Your task to perform on an android device: turn notification dots on Image 0: 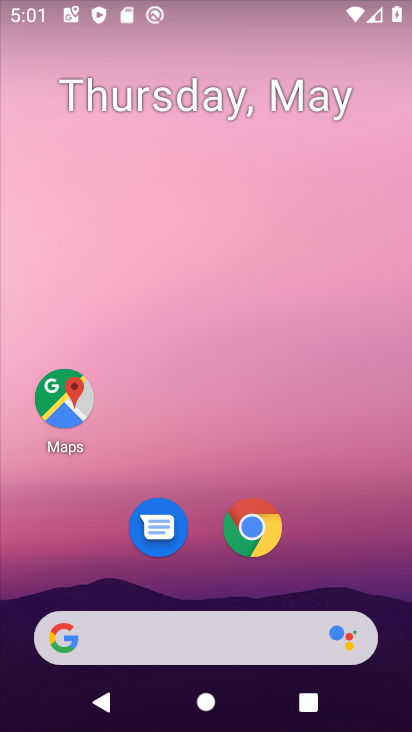
Step 0: drag from (349, 401) to (330, 16)
Your task to perform on an android device: turn notification dots on Image 1: 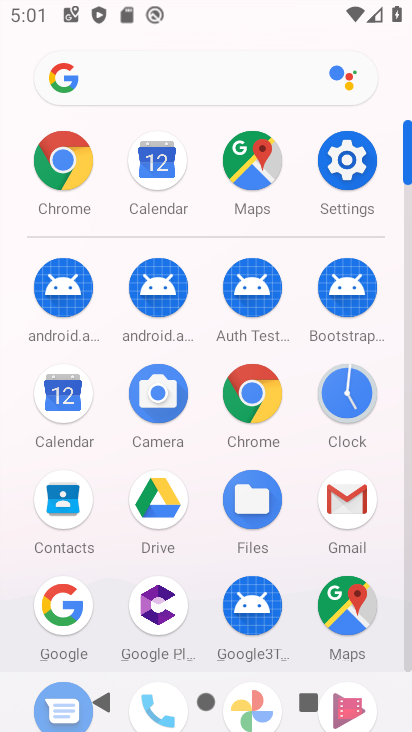
Step 1: click (351, 172)
Your task to perform on an android device: turn notification dots on Image 2: 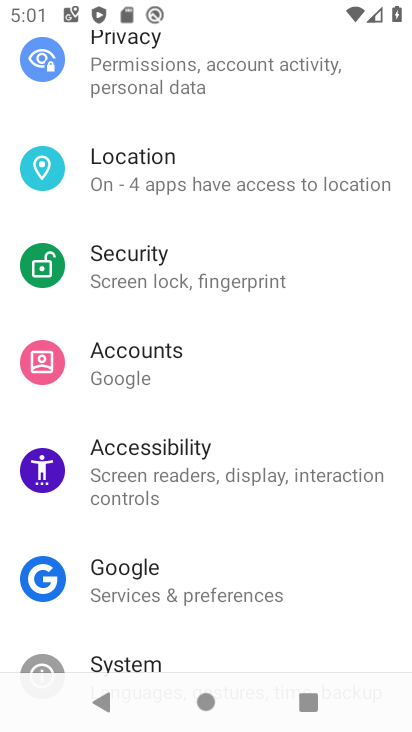
Step 2: drag from (207, 626) to (202, 224)
Your task to perform on an android device: turn notification dots on Image 3: 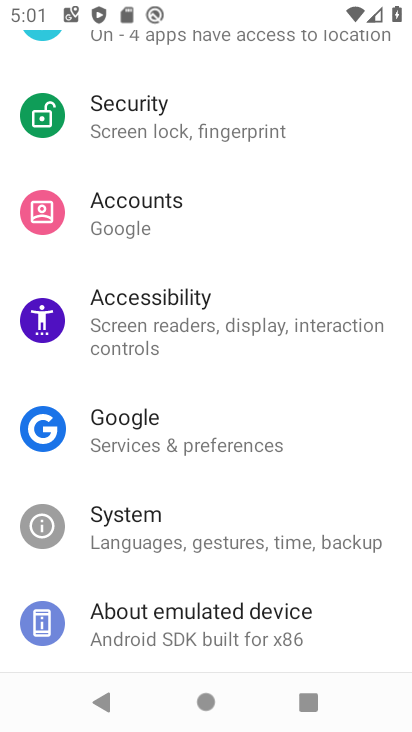
Step 3: drag from (202, 224) to (205, 592)
Your task to perform on an android device: turn notification dots on Image 4: 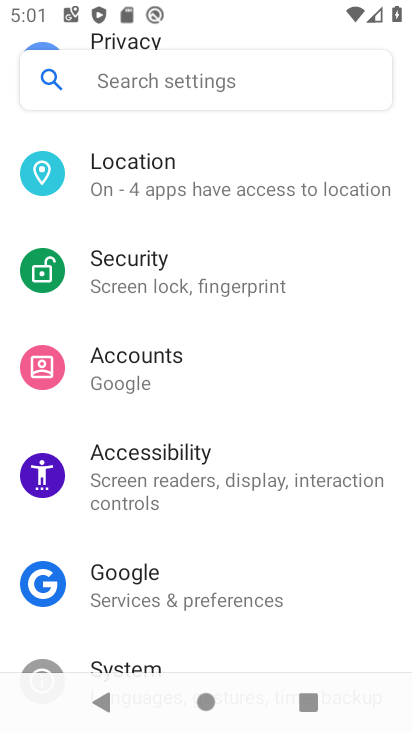
Step 4: drag from (193, 185) to (214, 600)
Your task to perform on an android device: turn notification dots on Image 5: 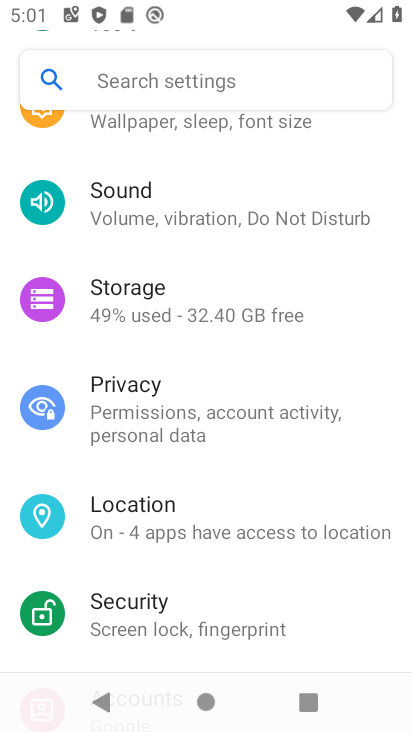
Step 5: drag from (200, 254) to (184, 641)
Your task to perform on an android device: turn notification dots on Image 6: 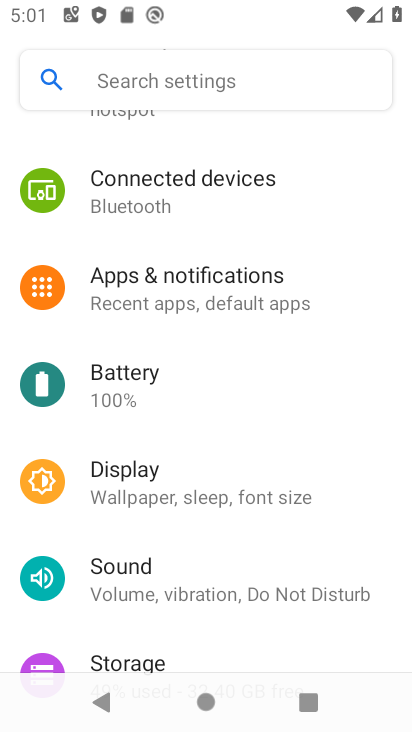
Step 6: click (188, 296)
Your task to perform on an android device: turn notification dots on Image 7: 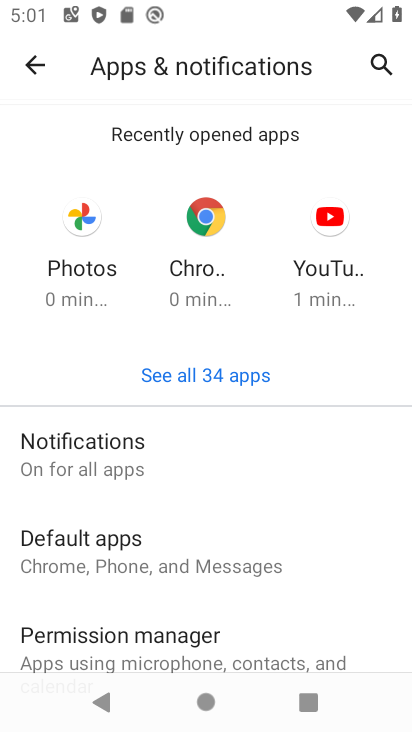
Step 7: click (91, 443)
Your task to perform on an android device: turn notification dots on Image 8: 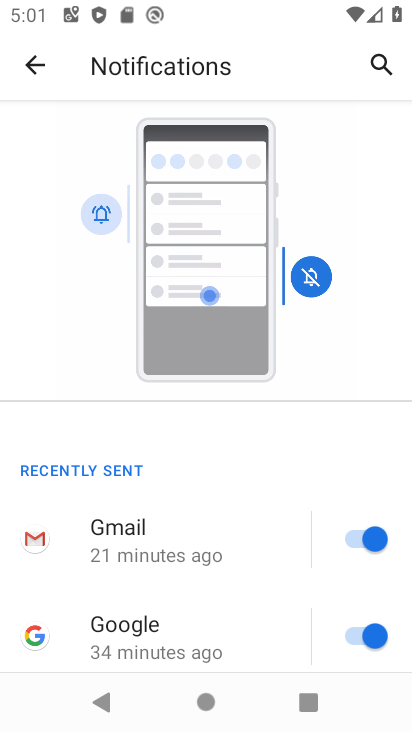
Step 8: drag from (59, 563) to (84, 225)
Your task to perform on an android device: turn notification dots on Image 9: 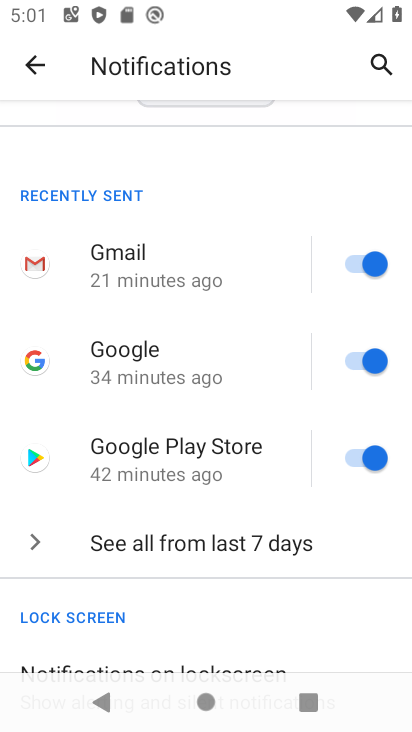
Step 9: drag from (137, 508) to (218, 156)
Your task to perform on an android device: turn notification dots on Image 10: 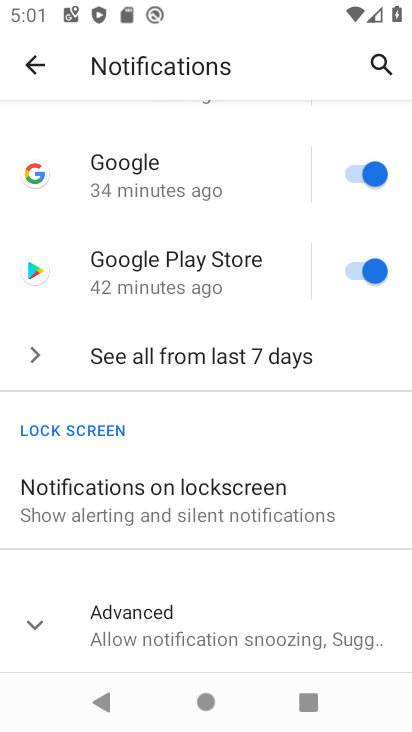
Step 10: click (178, 595)
Your task to perform on an android device: turn notification dots on Image 11: 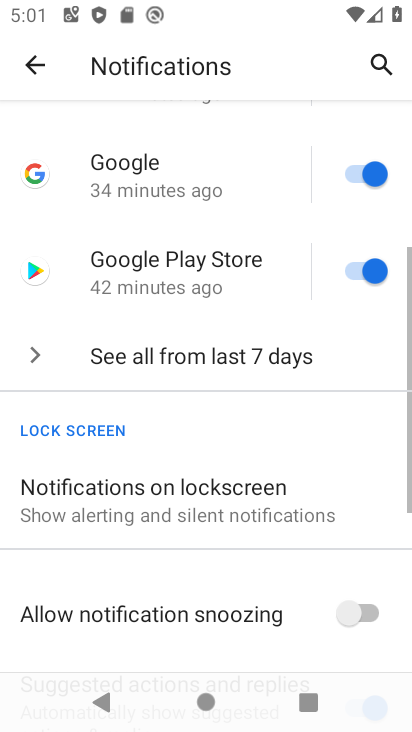
Step 11: task complete